Your task to perform on an android device: find which apps use the phone's location Image 0: 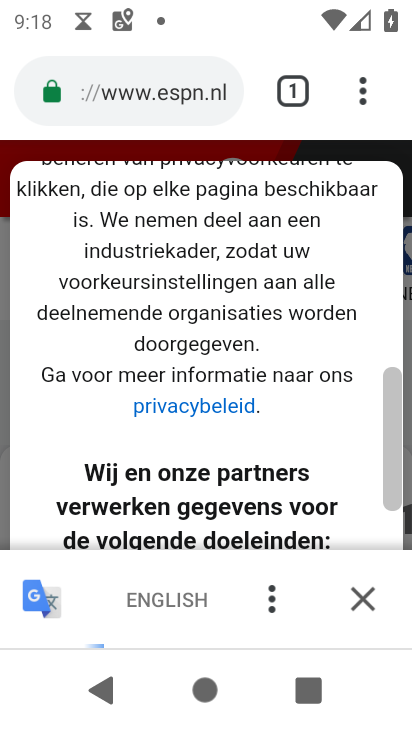
Step 0: press home button
Your task to perform on an android device: find which apps use the phone's location Image 1: 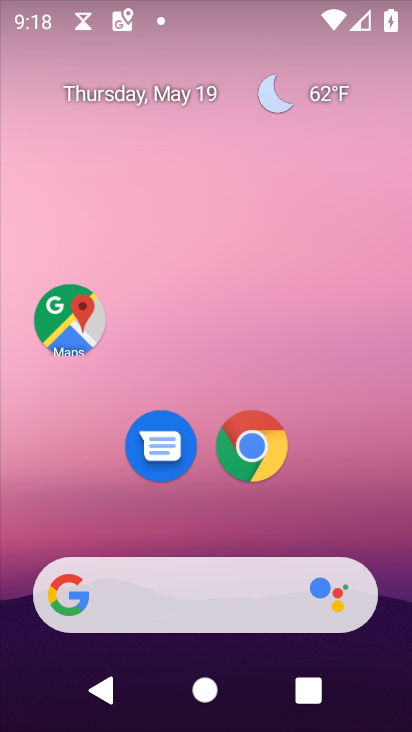
Step 1: drag from (316, 530) to (296, 0)
Your task to perform on an android device: find which apps use the phone's location Image 2: 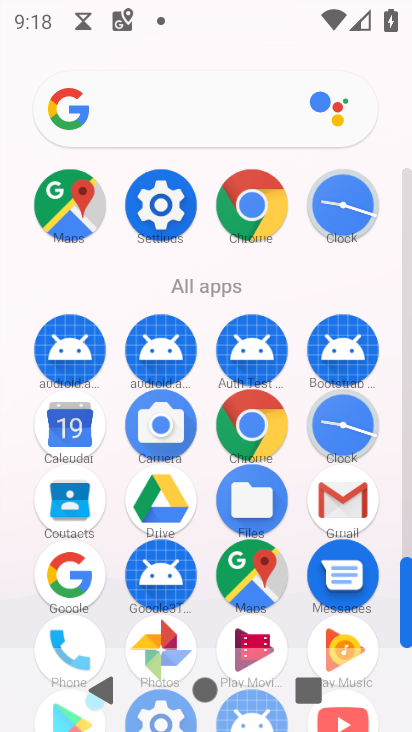
Step 2: click (159, 201)
Your task to perform on an android device: find which apps use the phone's location Image 3: 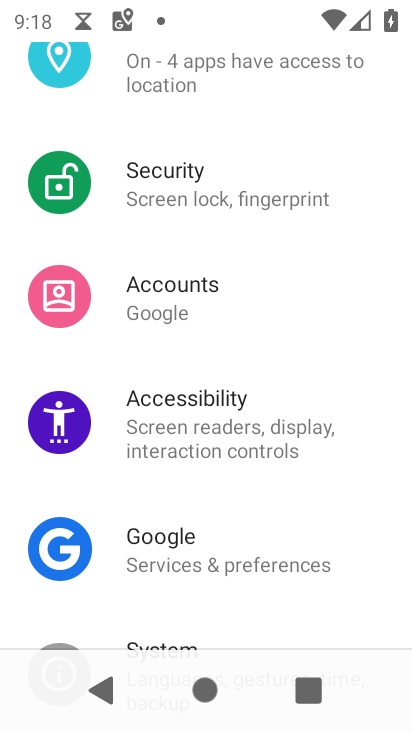
Step 3: click (147, 109)
Your task to perform on an android device: find which apps use the phone's location Image 4: 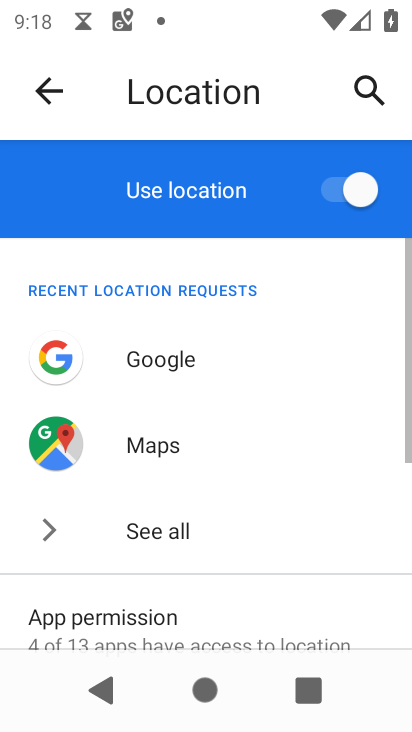
Step 4: drag from (213, 616) to (192, 347)
Your task to perform on an android device: find which apps use the phone's location Image 5: 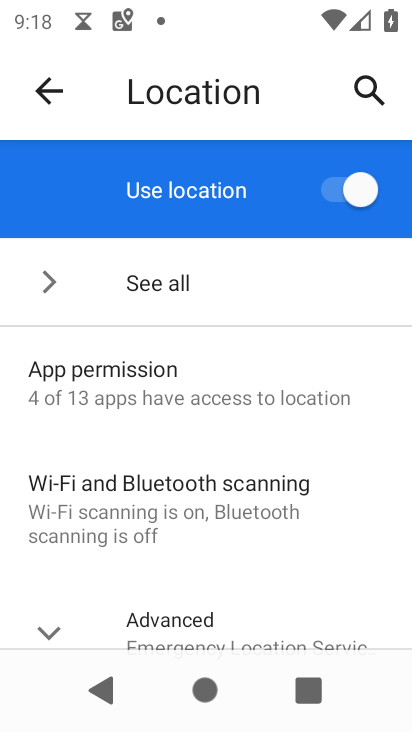
Step 5: drag from (189, 582) to (196, 358)
Your task to perform on an android device: find which apps use the phone's location Image 6: 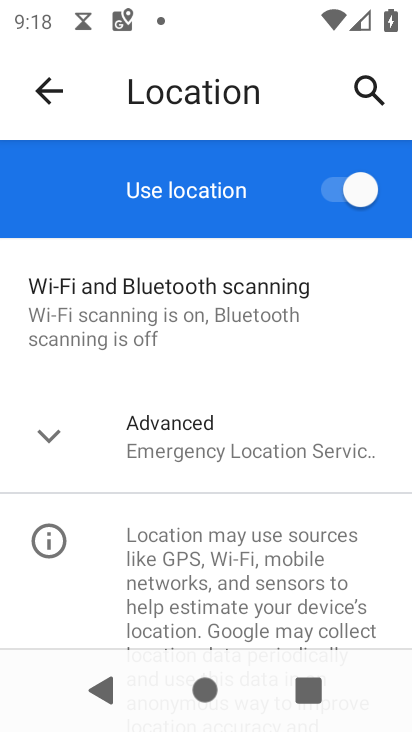
Step 6: drag from (156, 306) to (152, 373)
Your task to perform on an android device: find which apps use the phone's location Image 7: 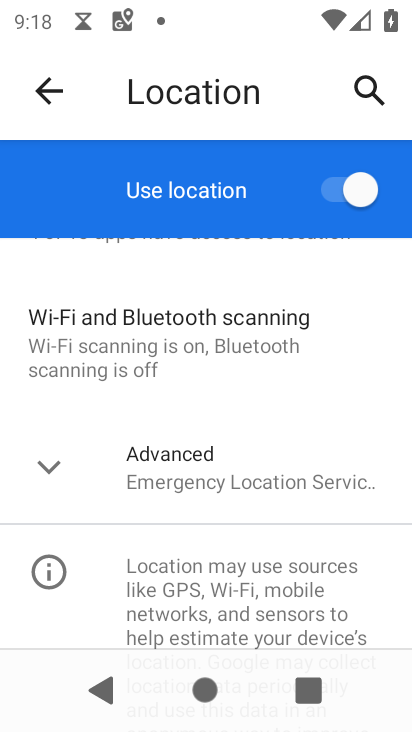
Step 7: click (128, 260)
Your task to perform on an android device: find which apps use the phone's location Image 8: 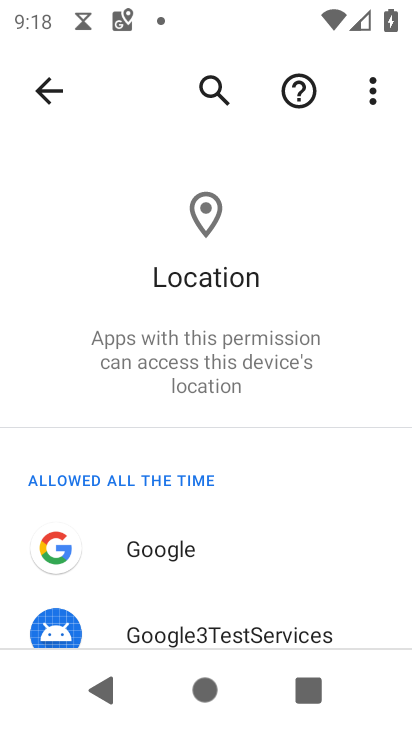
Step 8: task complete